Your task to perform on an android device: Search for sushi restaurants on Maps Image 0: 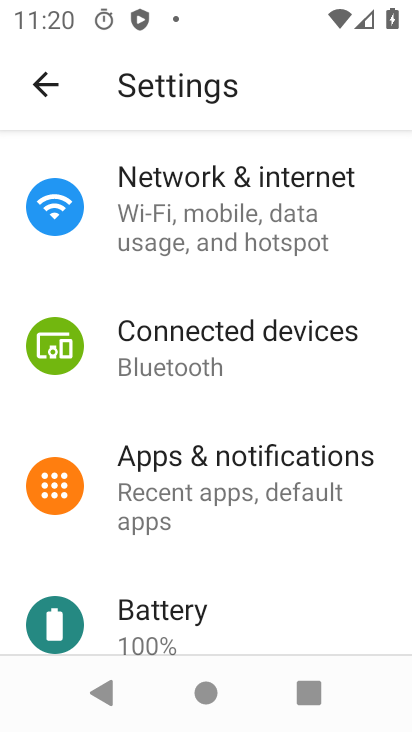
Step 0: press back button
Your task to perform on an android device: Search for sushi restaurants on Maps Image 1: 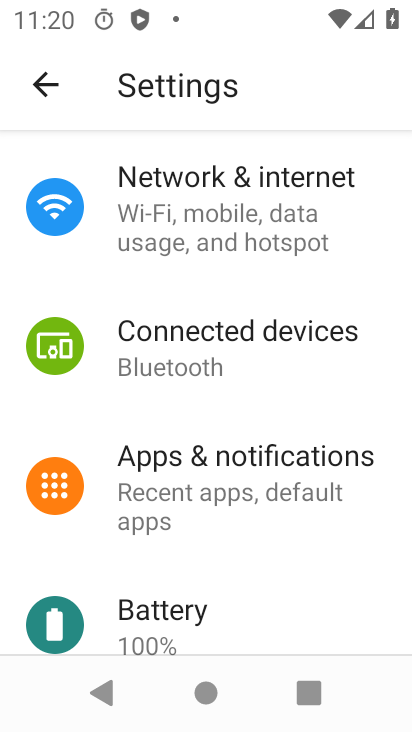
Step 1: press back button
Your task to perform on an android device: Search for sushi restaurants on Maps Image 2: 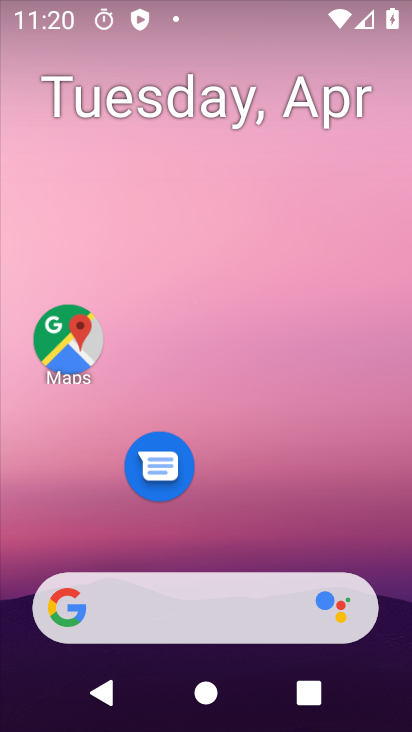
Step 2: click (54, 368)
Your task to perform on an android device: Search for sushi restaurants on Maps Image 3: 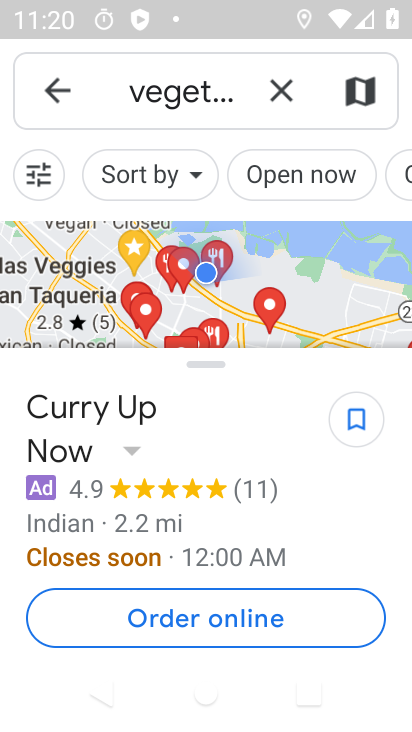
Step 3: click (269, 92)
Your task to perform on an android device: Search for sushi restaurants on Maps Image 4: 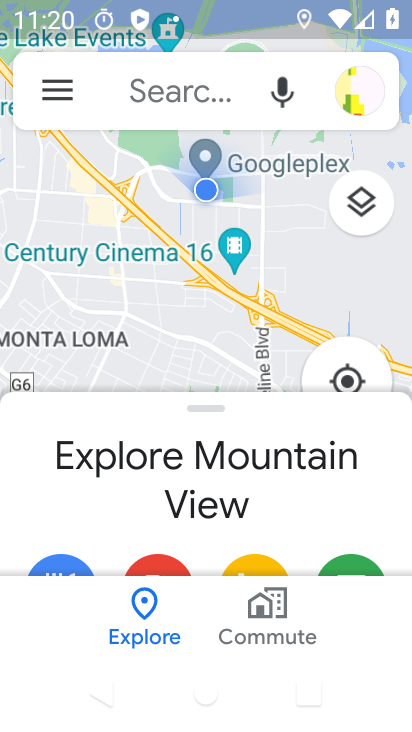
Step 4: click (179, 91)
Your task to perform on an android device: Search for sushi restaurants on Maps Image 5: 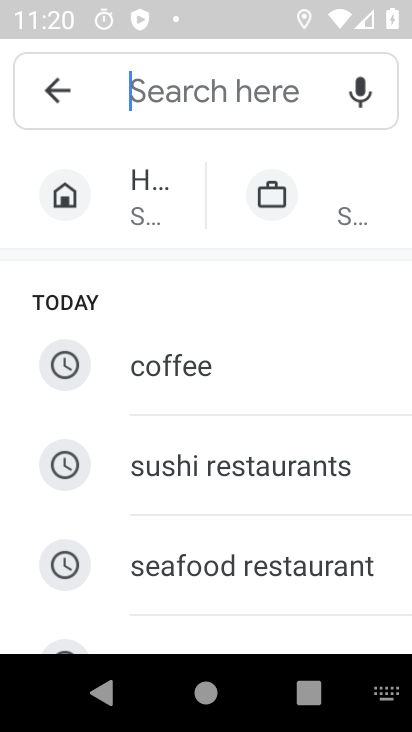
Step 5: click (240, 466)
Your task to perform on an android device: Search for sushi restaurants on Maps Image 6: 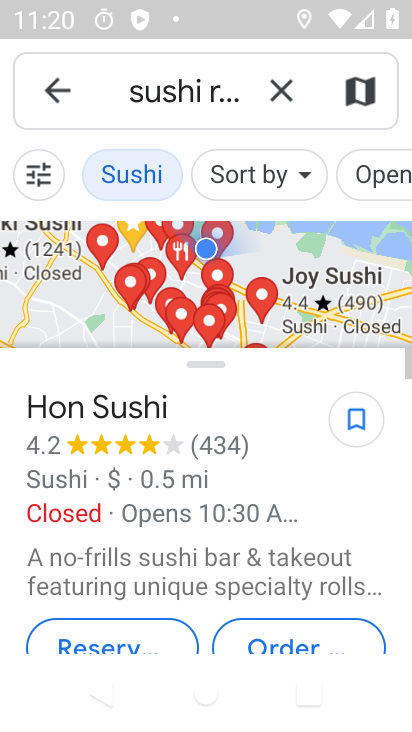
Step 6: task complete